Your task to perform on an android device: find which apps use the phone's location Image 0: 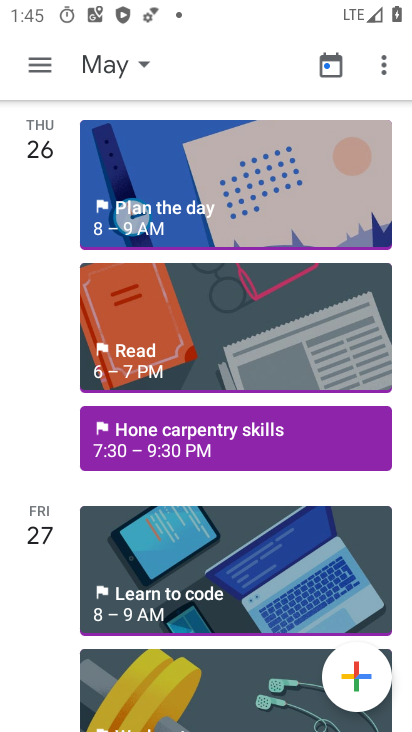
Step 0: press home button
Your task to perform on an android device: find which apps use the phone's location Image 1: 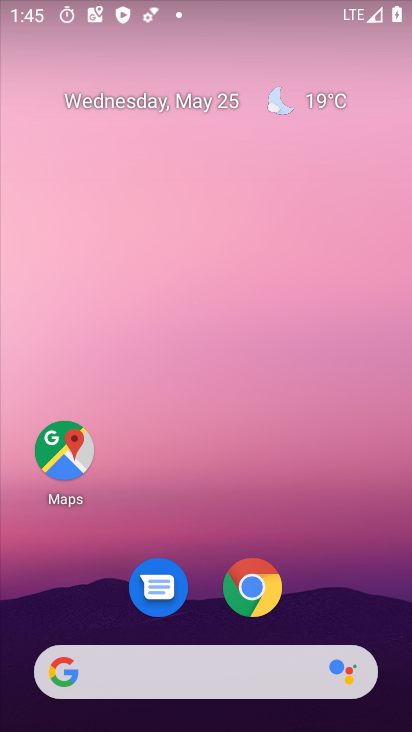
Step 1: drag from (203, 729) to (204, 245)
Your task to perform on an android device: find which apps use the phone's location Image 2: 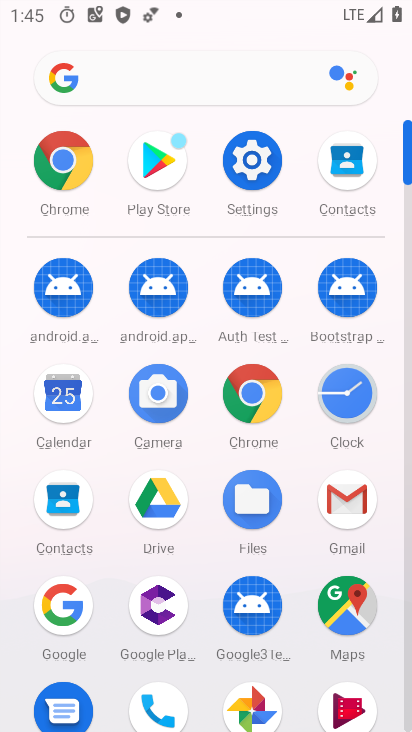
Step 2: click (254, 160)
Your task to perform on an android device: find which apps use the phone's location Image 3: 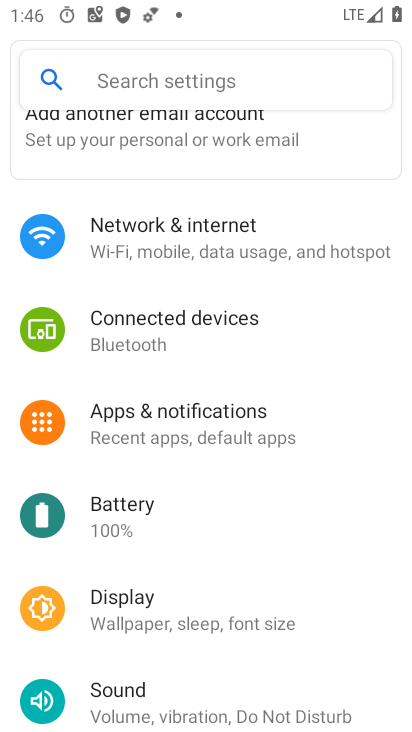
Step 3: drag from (202, 644) to (211, 379)
Your task to perform on an android device: find which apps use the phone's location Image 4: 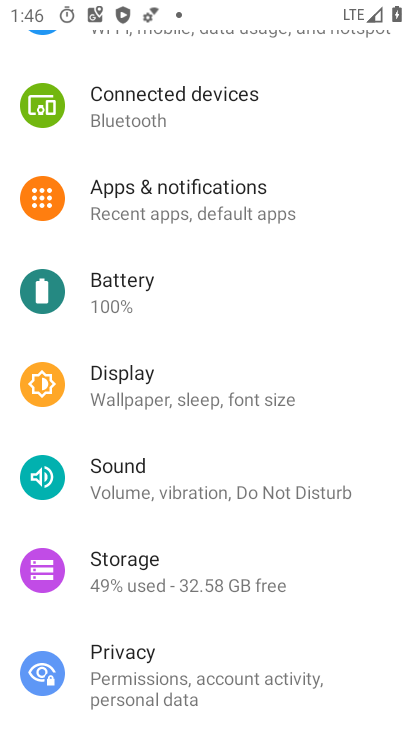
Step 4: drag from (156, 615) to (177, 415)
Your task to perform on an android device: find which apps use the phone's location Image 5: 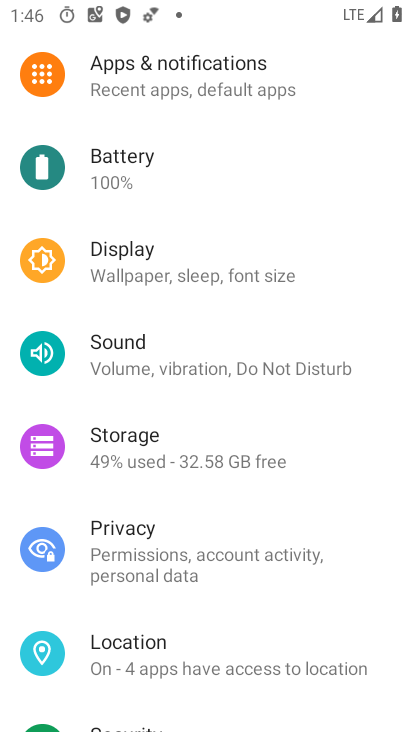
Step 5: click (137, 648)
Your task to perform on an android device: find which apps use the phone's location Image 6: 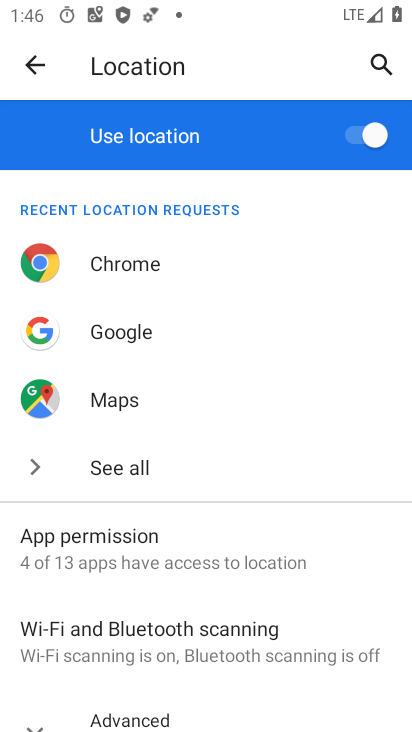
Step 6: click (101, 551)
Your task to perform on an android device: find which apps use the phone's location Image 7: 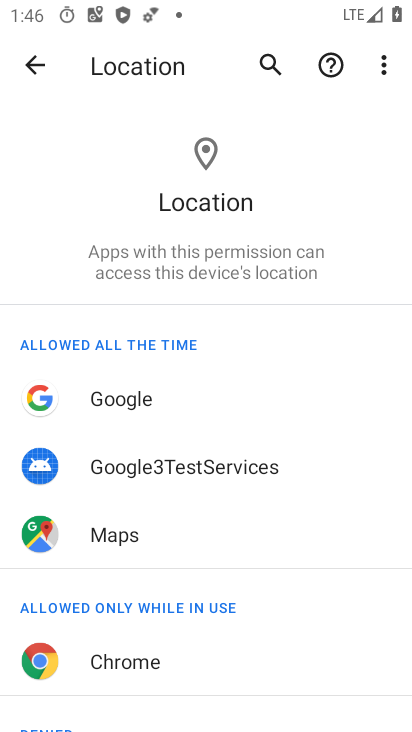
Step 7: task complete